Your task to perform on an android device: open a bookmark in the chrome app Image 0: 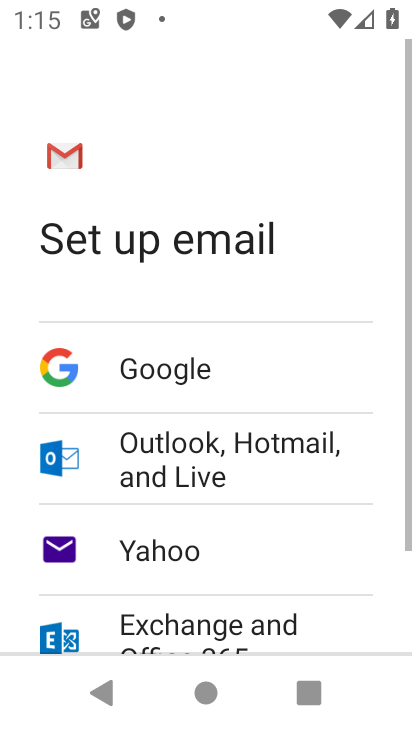
Step 0: press home button
Your task to perform on an android device: open a bookmark in the chrome app Image 1: 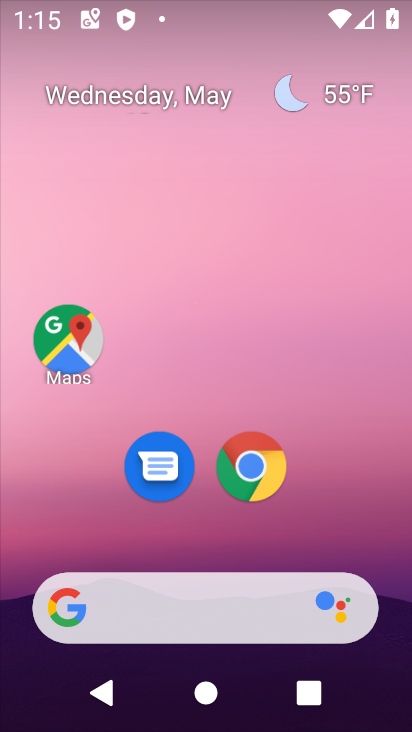
Step 1: click (243, 471)
Your task to perform on an android device: open a bookmark in the chrome app Image 2: 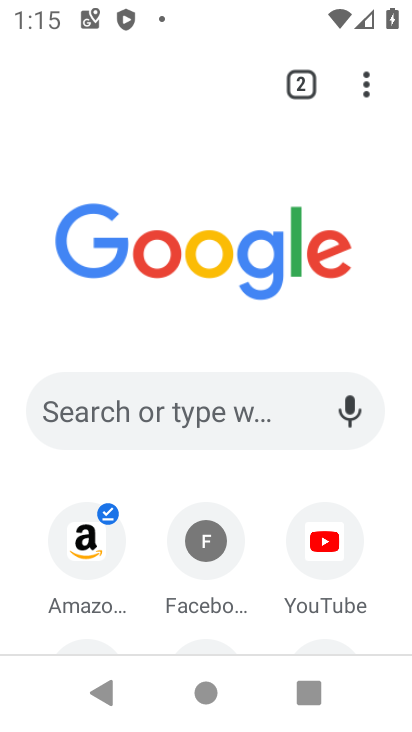
Step 2: click (366, 91)
Your task to perform on an android device: open a bookmark in the chrome app Image 3: 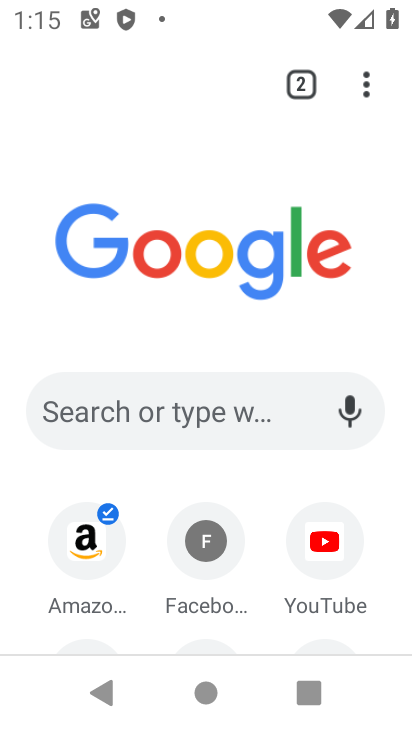
Step 3: click (366, 91)
Your task to perform on an android device: open a bookmark in the chrome app Image 4: 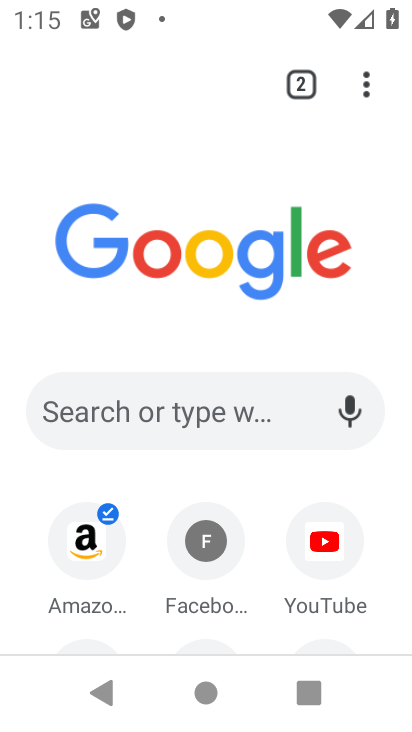
Step 4: click (360, 81)
Your task to perform on an android device: open a bookmark in the chrome app Image 5: 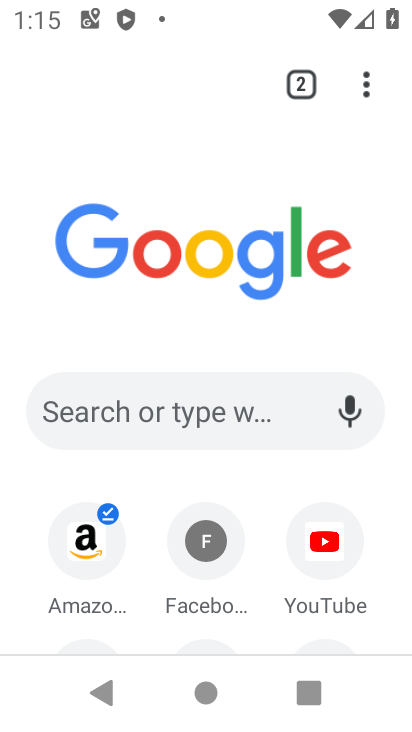
Step 5: click (360, 83)
Your task to perform on an android device: open a bookmark in the chrome app Image 6: 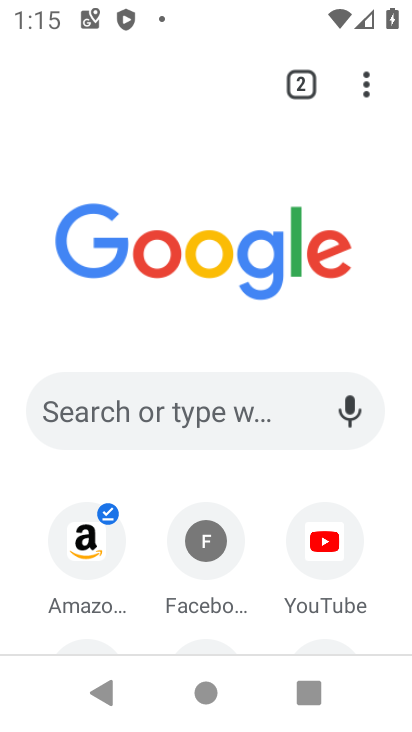
Step 6: click (371, 109)
Your task to perform on an android device: open a bookmark in the chrome app Image 7: 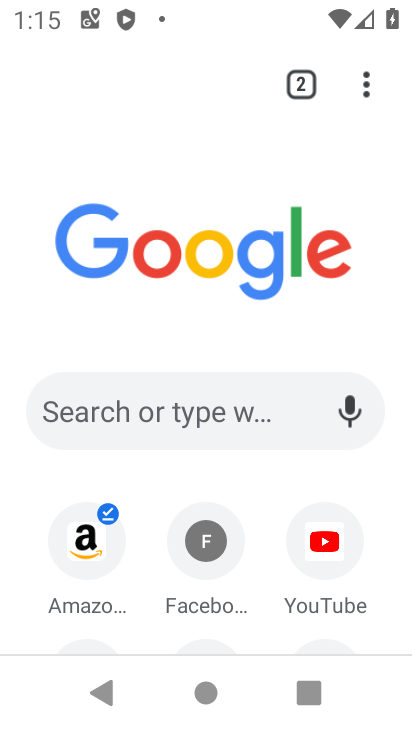
Step 7: click (371, 109)
Your task to perform on an android device: open a bookmark in the chrome app Image 8: 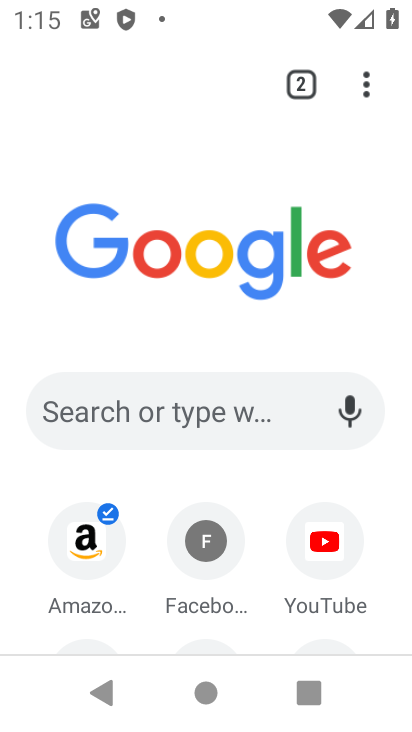
Step 8: click (372, 96)
Your task to perform on an android device: open a bookmark in the chrome app Image 9: 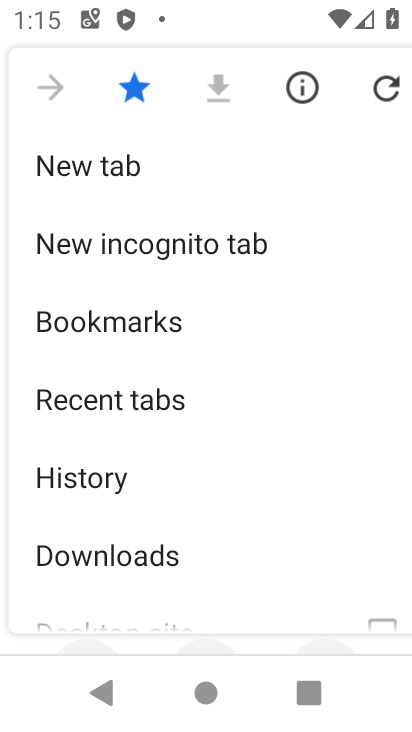
Step 9: click (139, 313)
Your task to perform on an android device: open a bookmark in the chrome app Image 10: 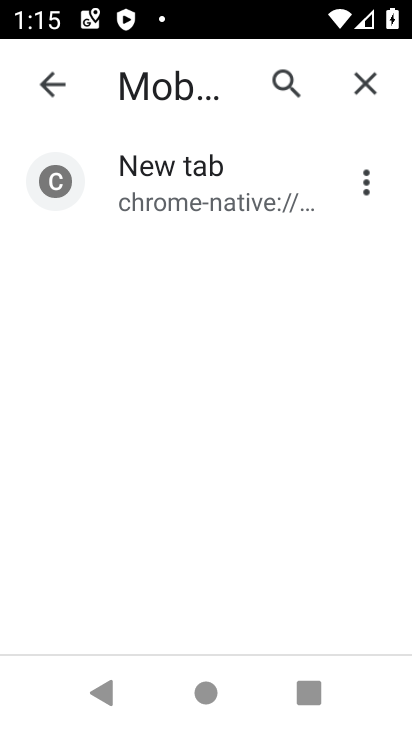
Step 10: click (186, 197)
Your task to perform on an android device: open a bookmark in the chrome app Image 11: 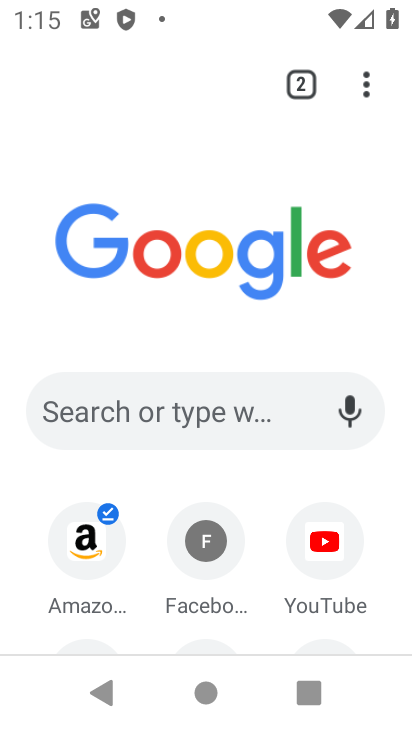
Step 11: task complete